Your task to perform on an android device: Open the phone app and click the voicemail tab. Image 0: 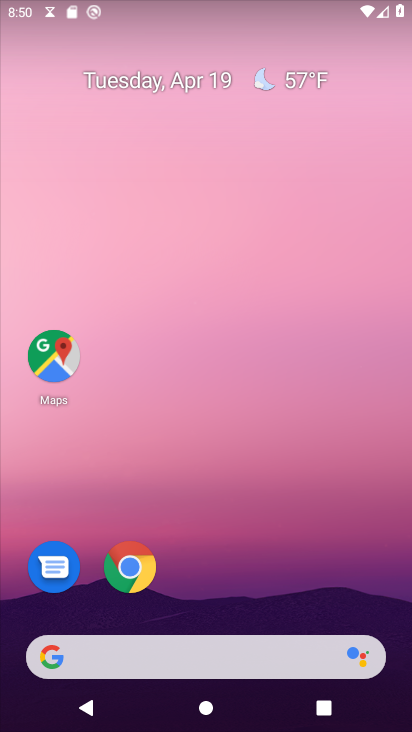
Step 0: drag from (345, 503) to (405, 52)
Your task to perform on an android device: Open the phone app and click the voicemail tab. Image 1: 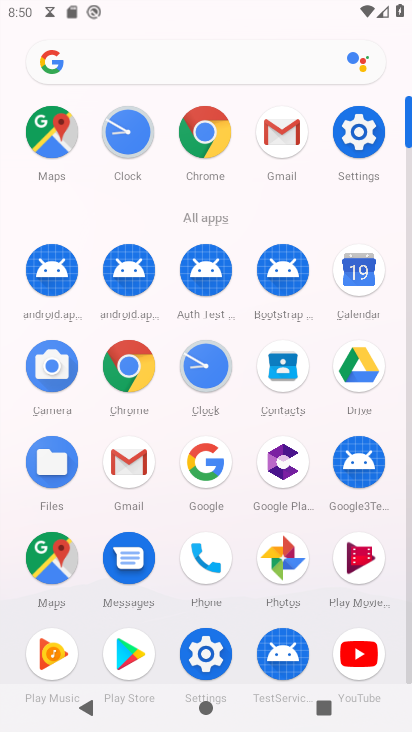
Step 1: click (195, 571)
Your task to perform on an android device: Open the phone app and click the voicemail tab. Image 2: 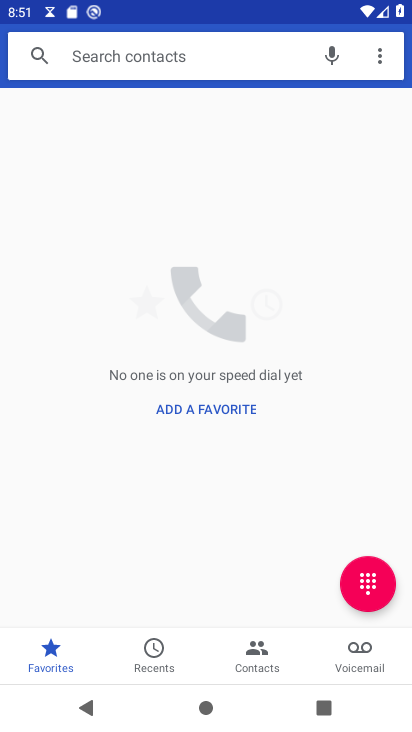
Step 2: click (364, 658)
Your task to perform on an android device: Open the phone app and click the voicemail tab. Image 3: 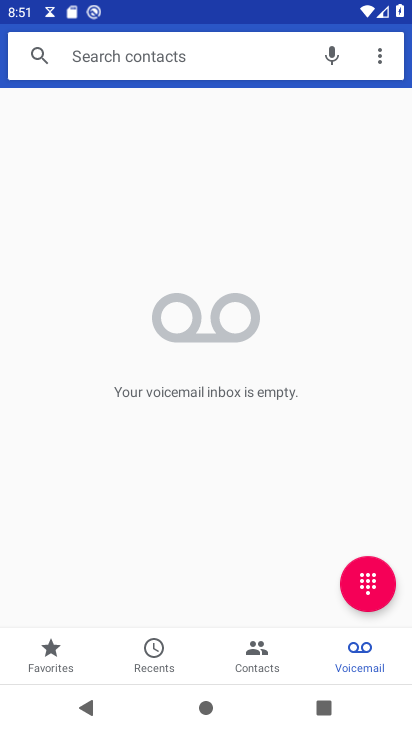
Step 3: task complete